Your task to perform on an android device: manage bookmarks in the chrome app Image 0: 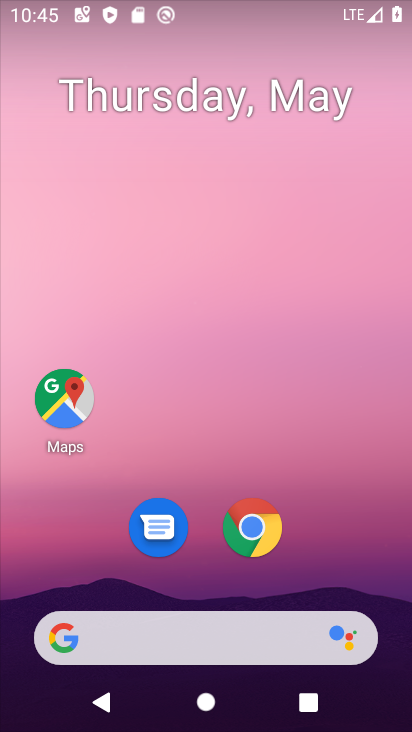
Step 0: click (255, 528)
Your task to perform on an android device: manage bookmarks in the chrome app Image 1: 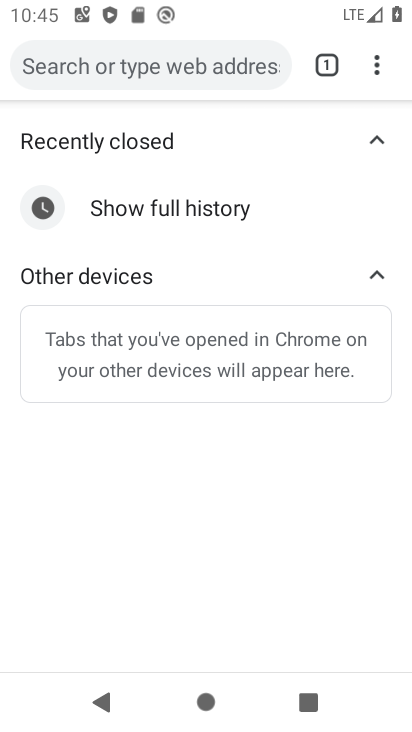
Step 1: task complete